Your task to perform on an android device: make emails show in primary in the gmail app Image 0: 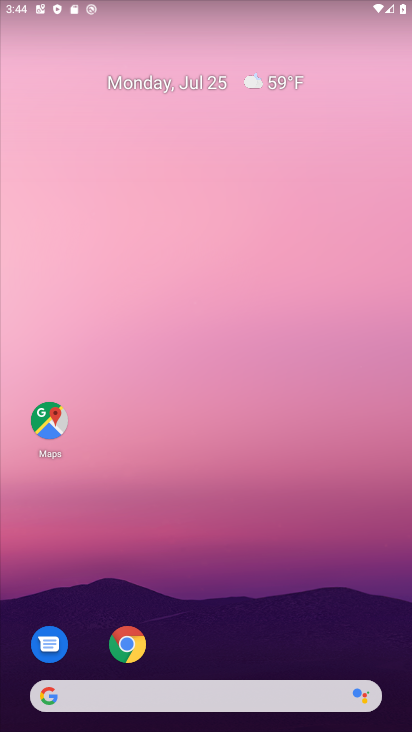
Step 0: drag from (243, 675) to (231, 228)
Your task to perform on an android device: make emails show in primary in the gmail app Image 1: 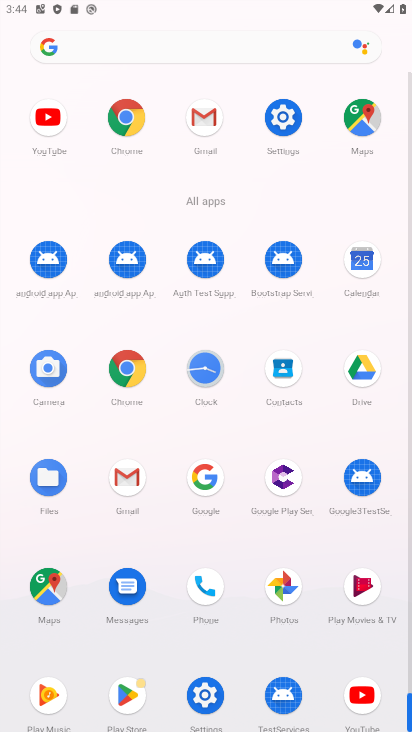
Step 1: click (126, 479)
Your task to perform on an android device: make emails show in primary in the gmail app Image 2: 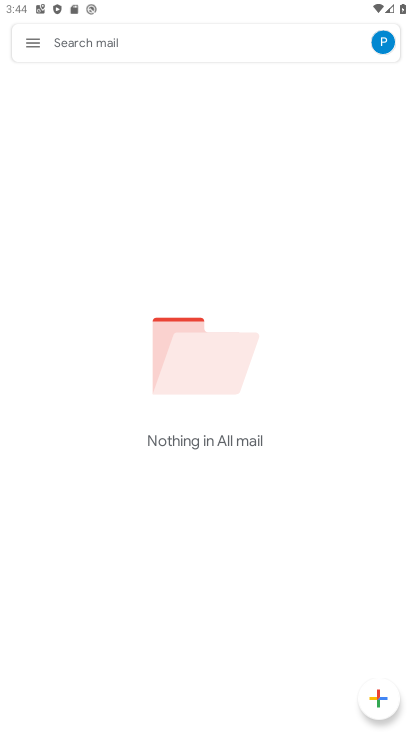
Step 2: click (26, 42)
Your task to perform on an android device: make emails show in primary in the gmail app Image 3: 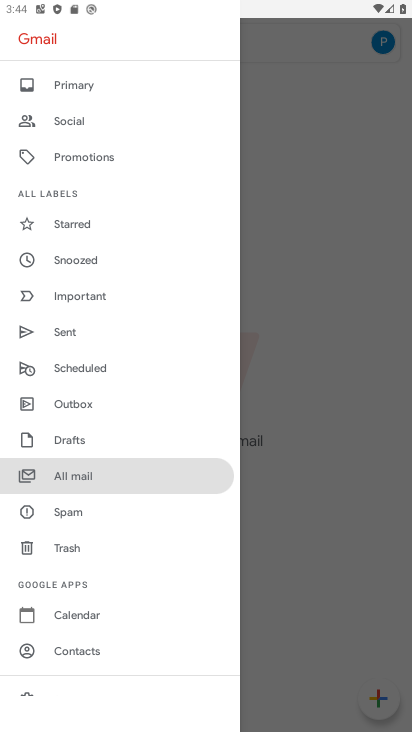
Step 3: drag from (70, 646) to (86, 205)
Your task to perform on an android device: make emails show in primary in the gmail app Image 4: 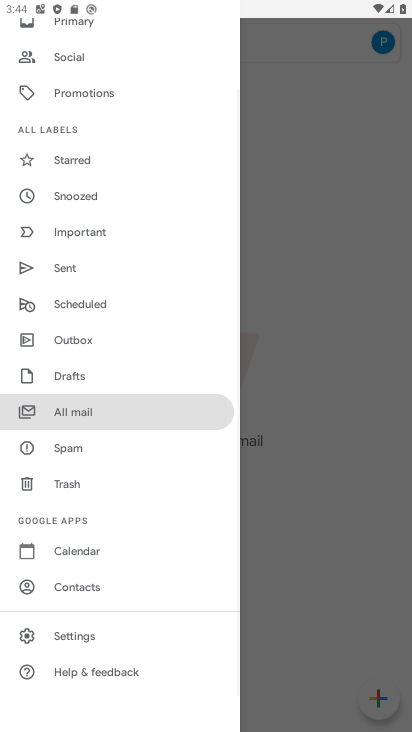
Step 4: click (79, 636)
Your task to perform on an android device: make emails show in primary in the gmail app Image 5: 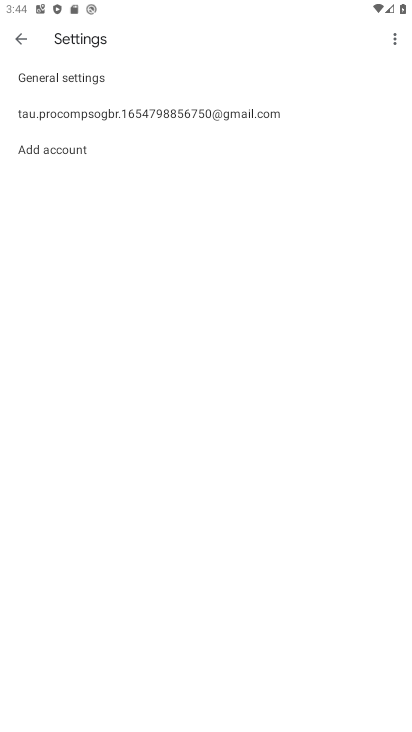
Step 5: click (57, 112)
Your task to perform on an android device: make emails show in primary in the gmail app Image 6: 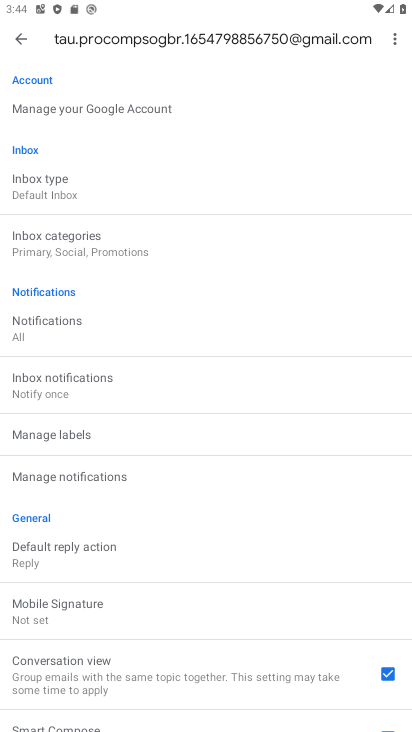
Step 6: click (77, 253)
Your task to perform on an android device: make emails show in primary in the gmail app Image 7: 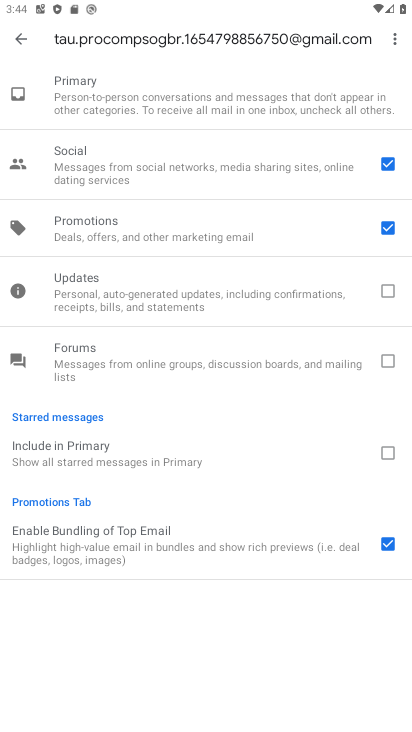
Step 7: click (394, 221)
Your task to perform on an android device: make emails show in primary in the gmail app Image 8: 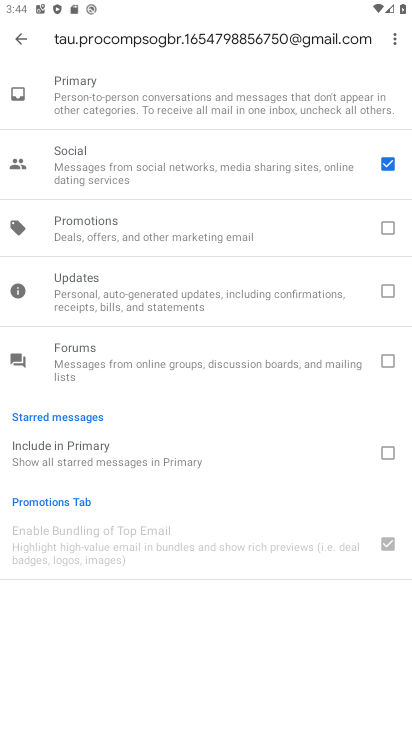
Step 8: click (392, 163)
Your task to perform on an android device: make emails show in primary in the gmail app Image 9: 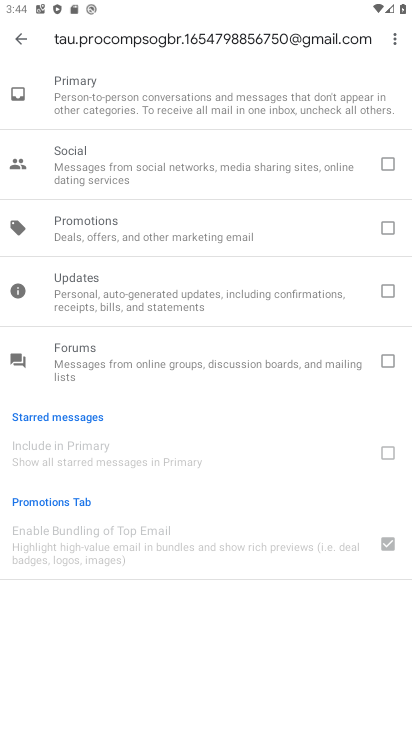
Step 9: click (18, 34)
Your task to perform on an android device: make emails show in primary in the gmail app Image 10: 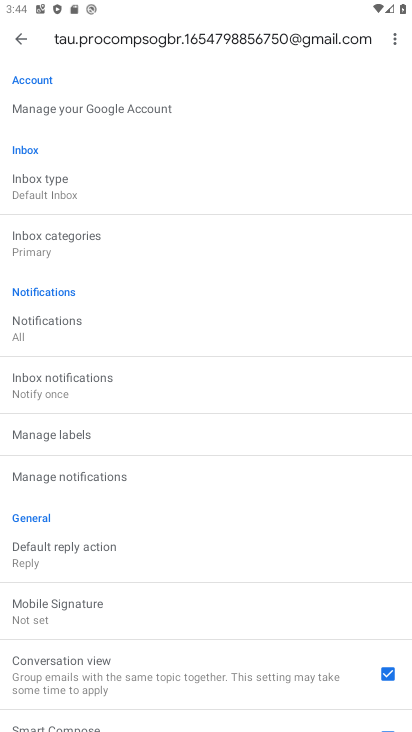
Step 10: click (23, 42)
Your task to perform on an android device: make emails show in primary in the gmail app Image 11: 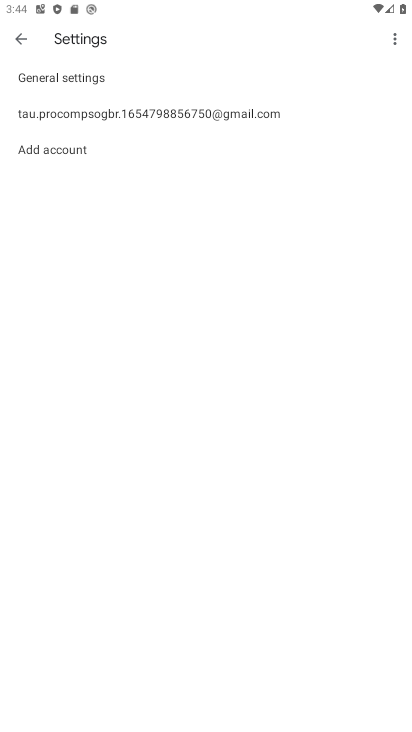
Step 11: task complete